Your task to perform on an android device: Go to CNN.com Image 0: 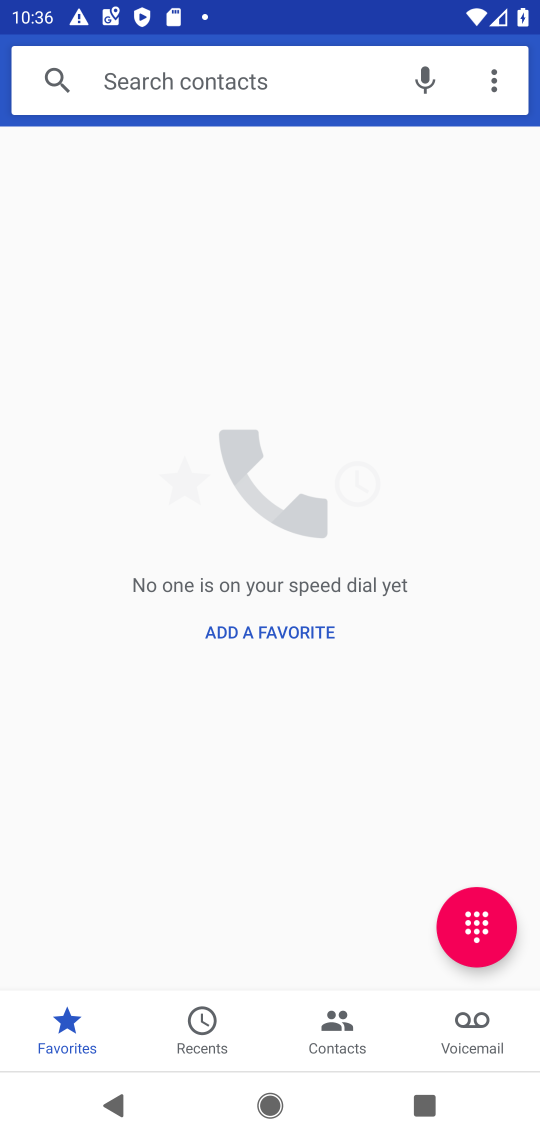
Step 0: press home button
Your task to perform on an android device: Go to CNN.com Image 1: 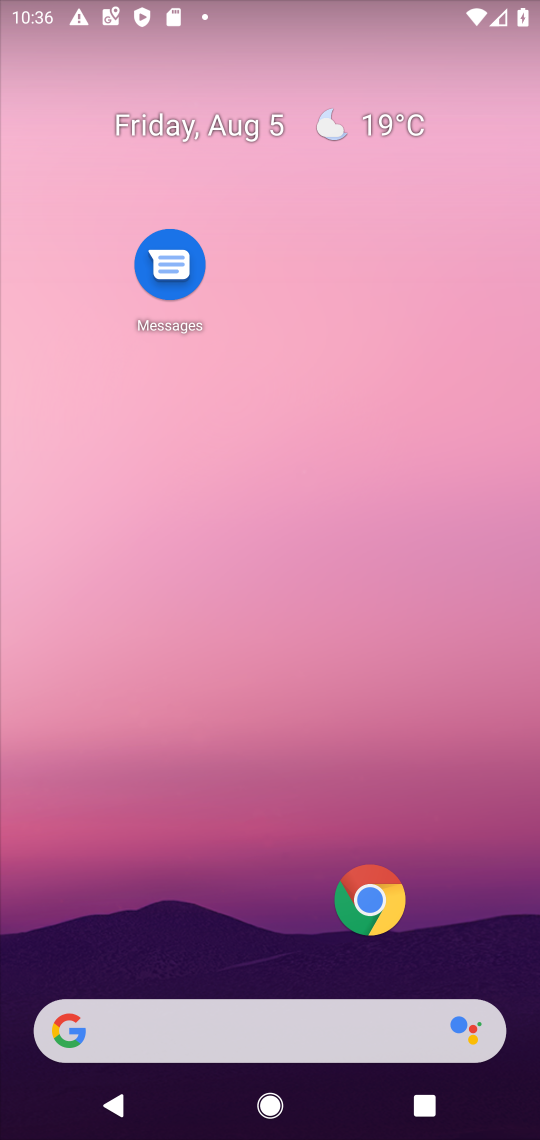
Step 1: click (378, 905)
Your task to perform on an android device: Go to CNN.com Image 2: 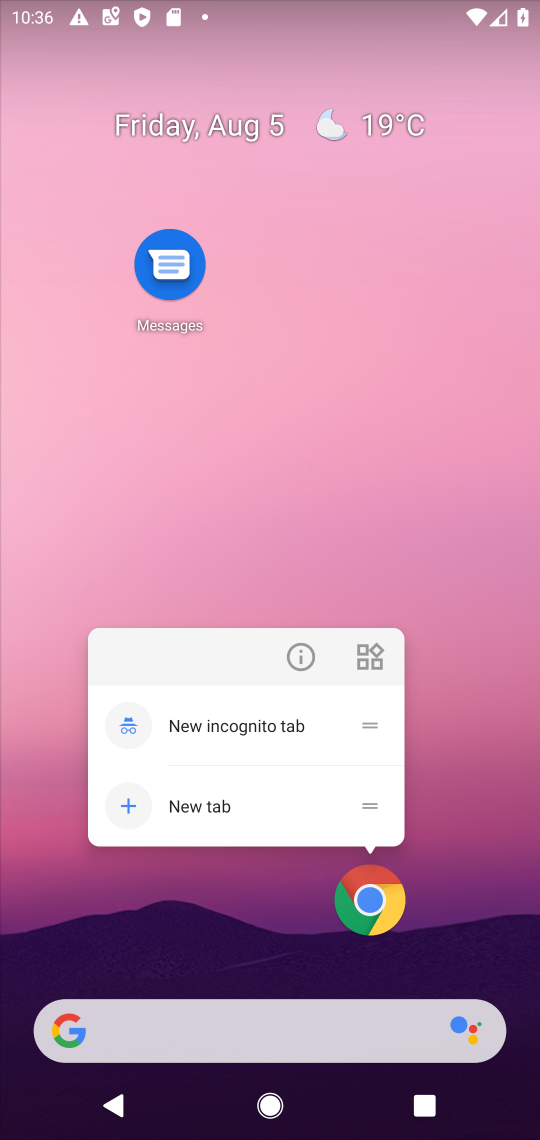
Step 2: click (363, 923)
Your task to perform on an android device: Go to CNN.com Image 3: 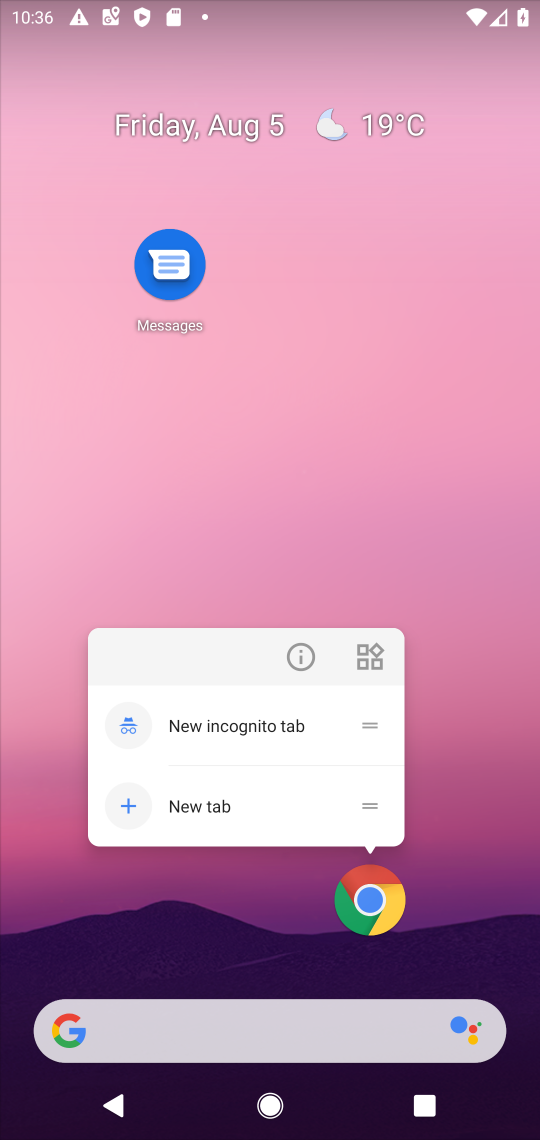
Step 3: click (361, 944)
Your task to perform on an android device: Go to CNN.com Image 4: 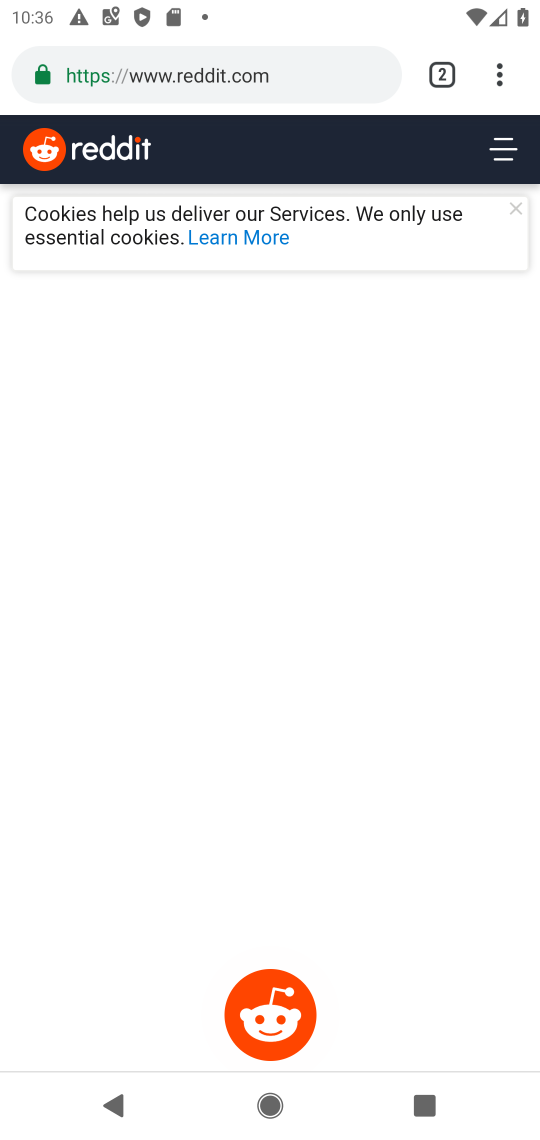
Step 4: click (296, 65)
Your task to perform on an android device: Go to CNN.com Image 5: 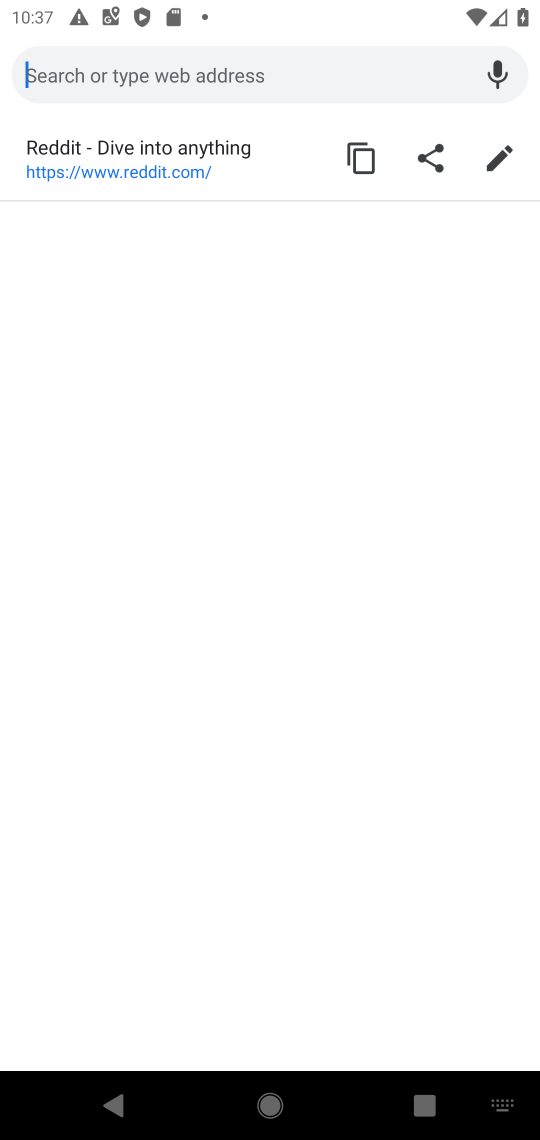
Step 5: type "CNN.com"
Your task to perform on an android device: Go to CNN.com Image 6: 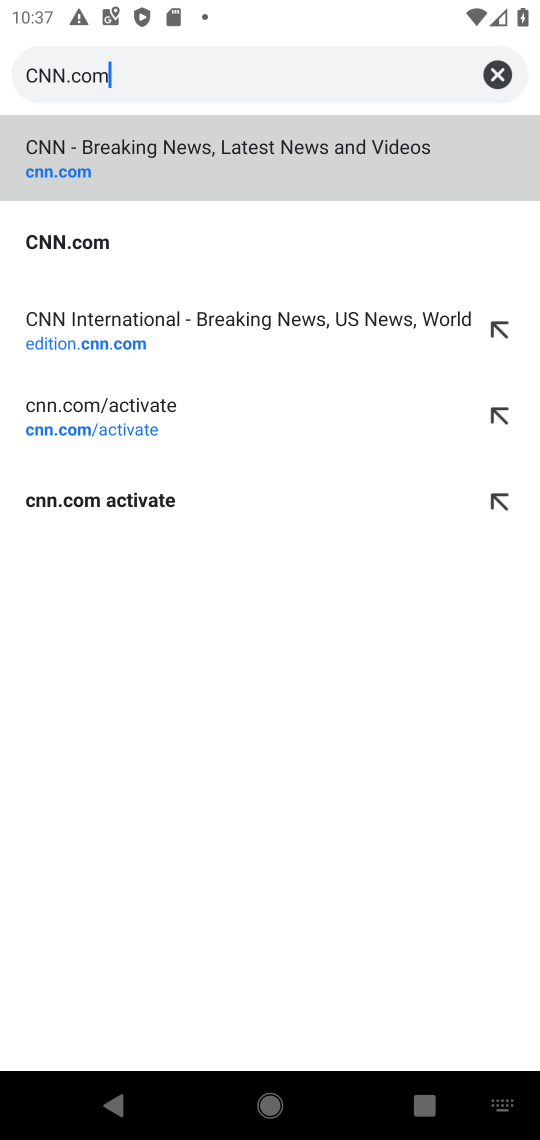
Step 6: click (33, 190)
Your task to perform on an android device: Go to CNN.com Image 7: 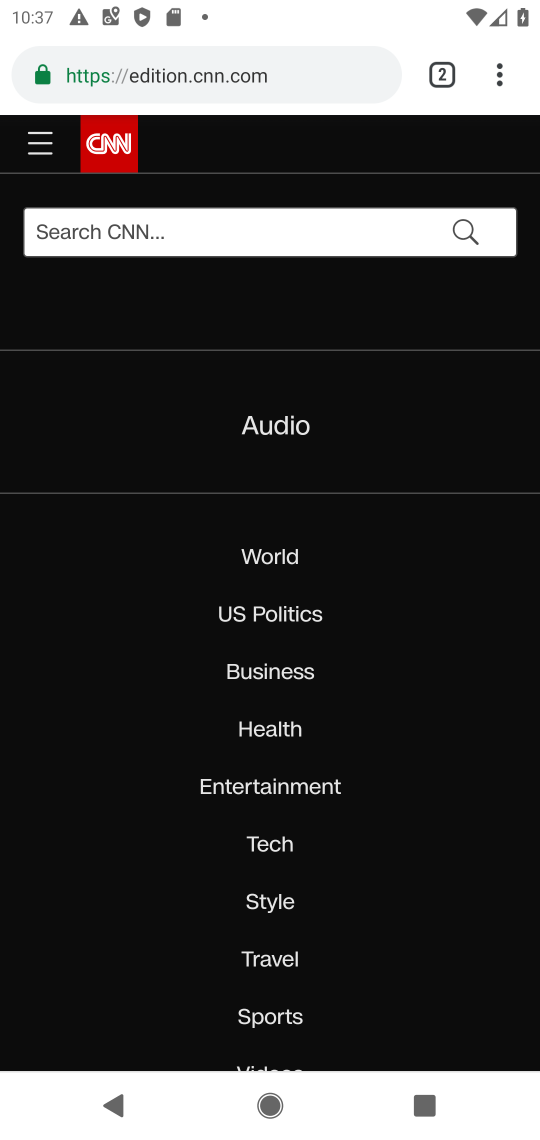
Step 7: task complete